Your task to perform on an android device: turn on translation in the chrome app Image 0: 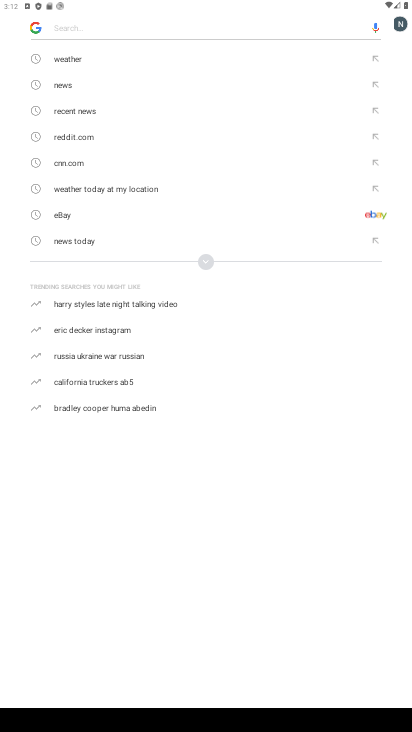
Step 0: press home button
Your task to perform on an android device: turn on translation in the chrome app Image 1: 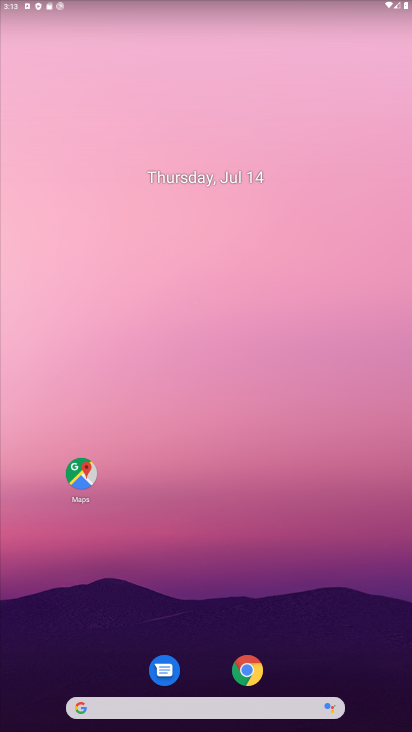
Step 1: click (236, 676)
Your task to perform on an android device: turn on translation in the chrome app Image 2: 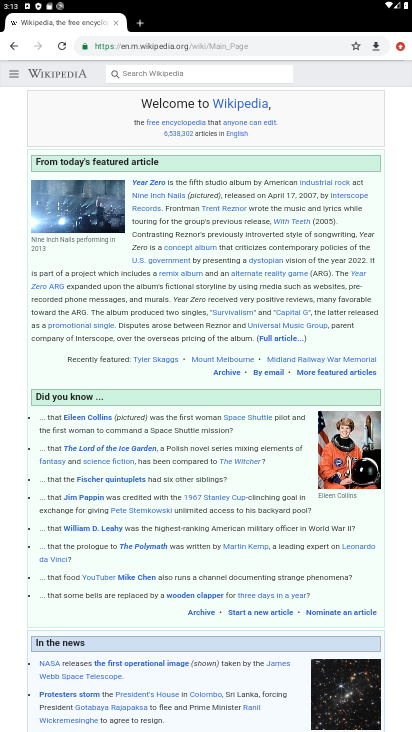
Step 2: click (394, 47)
Your task to perform on an android device: turn on translation in the chrome app Image 3: 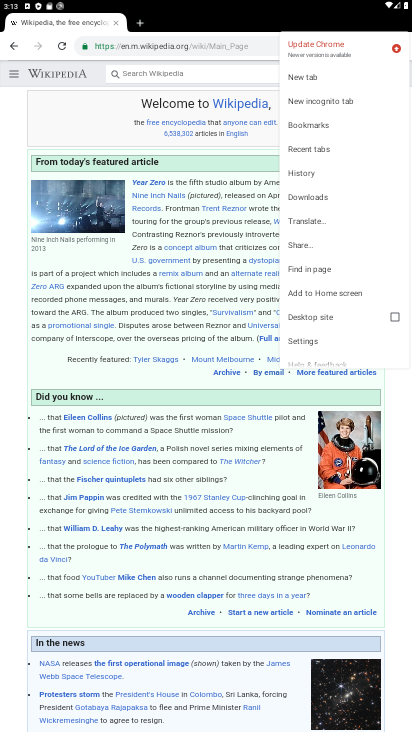
Step 3: click (303, 339)
Your task to perform on an android device: turn on translation in the chrome app Image 4: 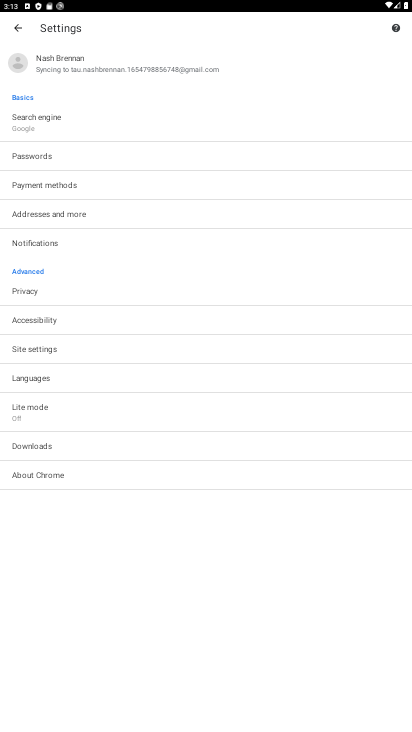
Step 4: click (76, 383)
Your task to perform on an android device: turn on translation in the chrome app Image 5: 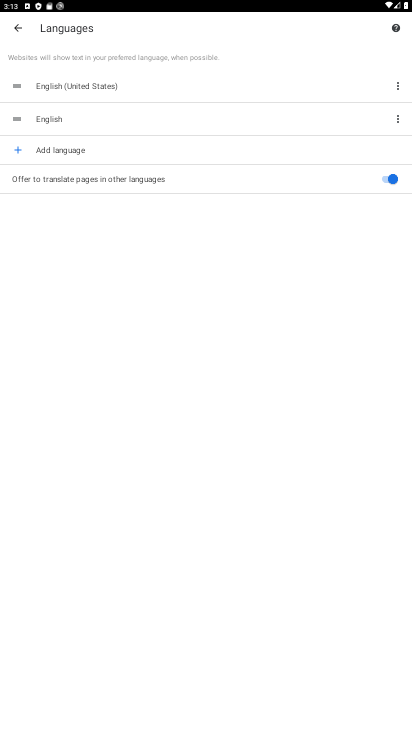
Step 5: task complete